Your task to perform on an android device: Go to accessibility settings Image 0: 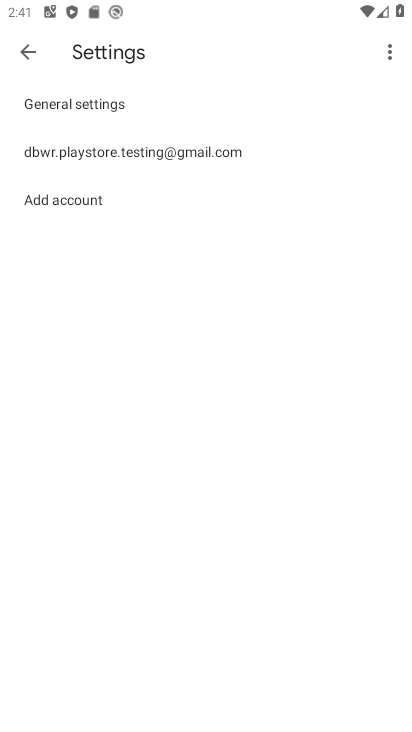
Step 0: press home button
Your task to perform on an android device: Go to accessibility settings Image 1: 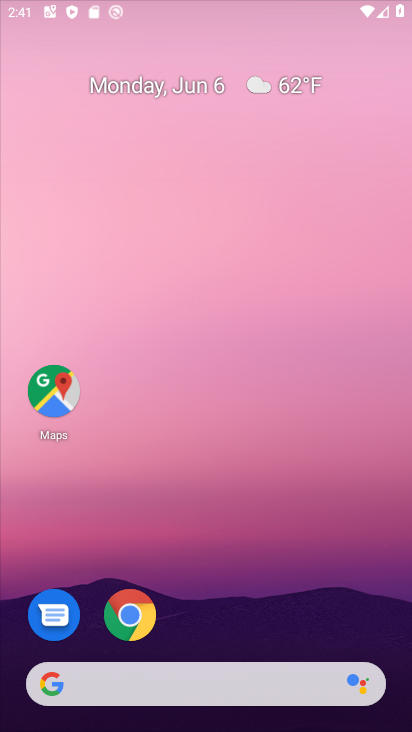
Step 1: drag from (261, 655) to (287, 2)
Your task to perform on an android device: Go to accessibility settings Image 2: 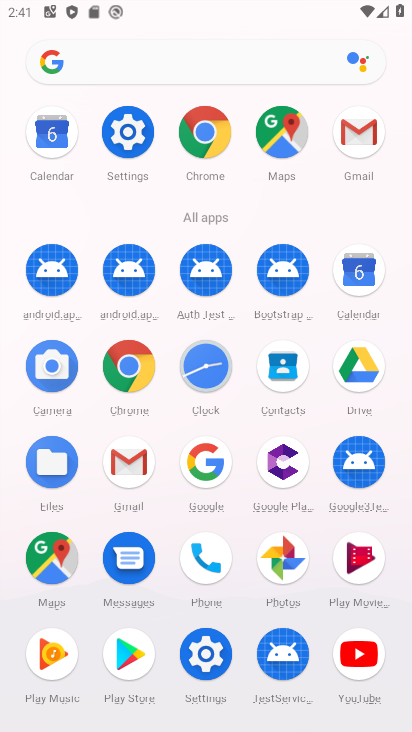
Step 2: click (139, 140)
Your task to perform on an android device: Go to accessibility settings Image 3: 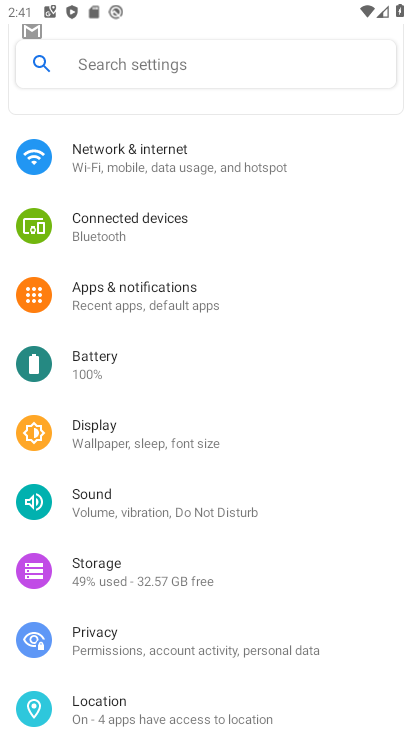
Step 3: drag from (243, 670) to (279, 41)
Your task to perform on an android device: Go to accessibility settings Image 4: 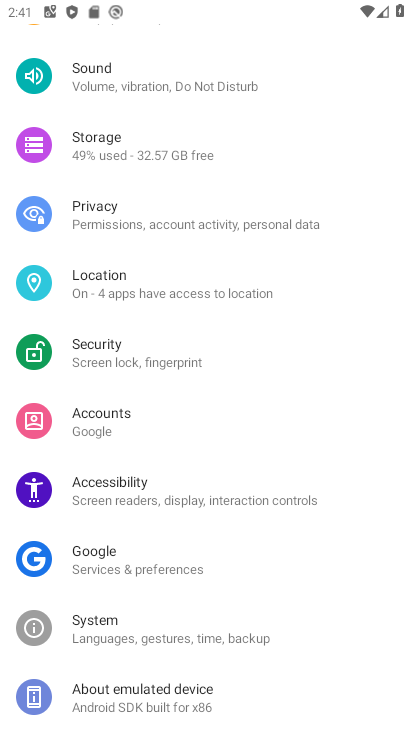
Step 4: click (150, 511)
Your task to perform on an android device: Go to accessibility settings Image 5: 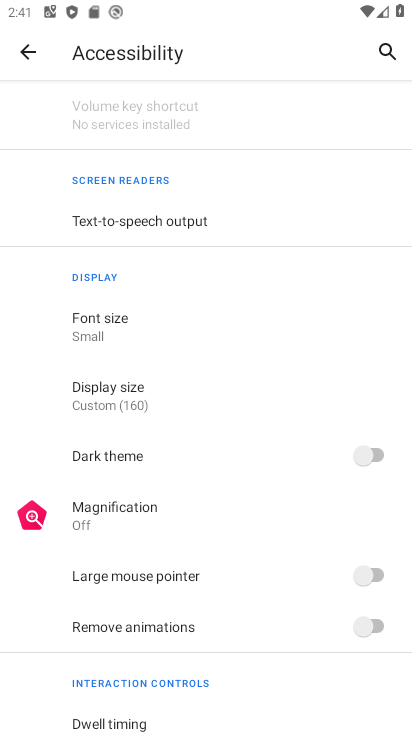
Step 5: task complete